Your task to perform on an android device: Open maps Image 0: 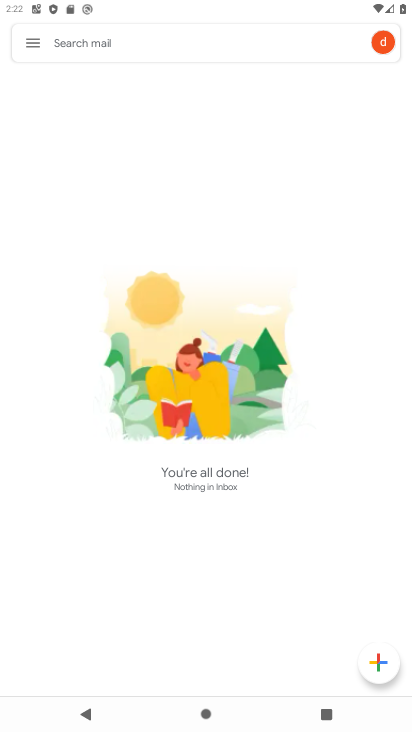
Step 0: press home button
Your task to perform on an android device: Open maps Image 1: 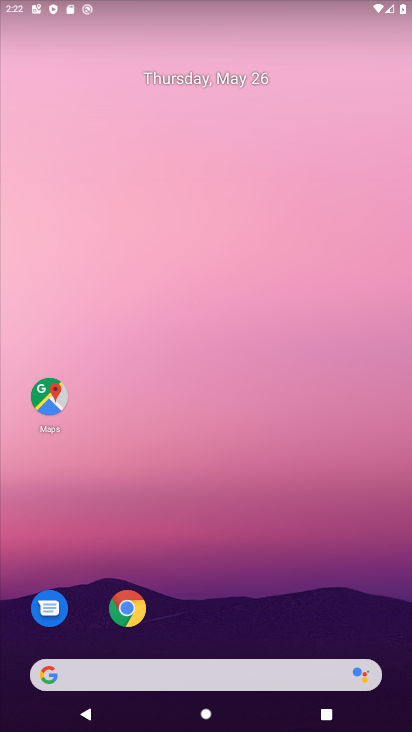
Step 1: drag from (338, 468) to (393, 48)
Your task to perform on an android device: Open maps Image 2: 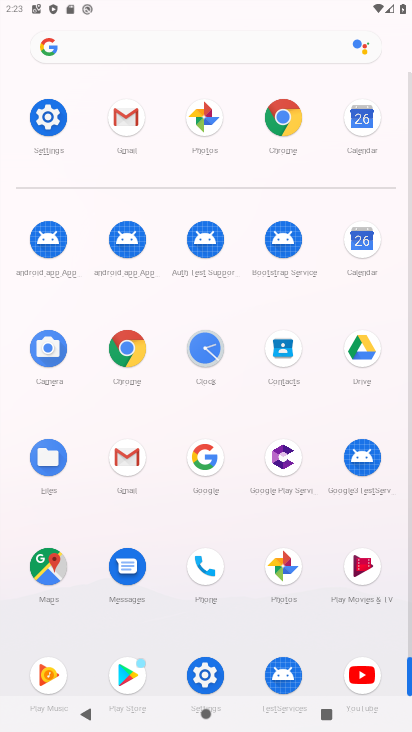
Step 2: click (56, 572)
Your task to perform on an android device: Open maps Image 3: 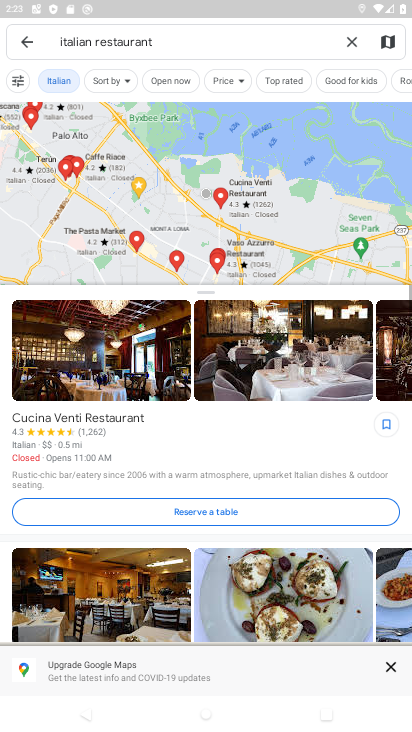
Step 3: task complete